Your task to perform on an android device: What's the weather? Image 0: 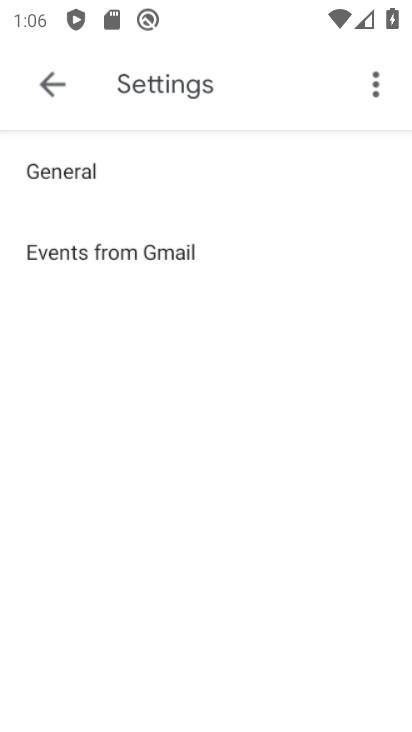
Step 0: drag from (160, 586) to (245, 89)
Your task to perform on an android device: What's the weather? Image 1: 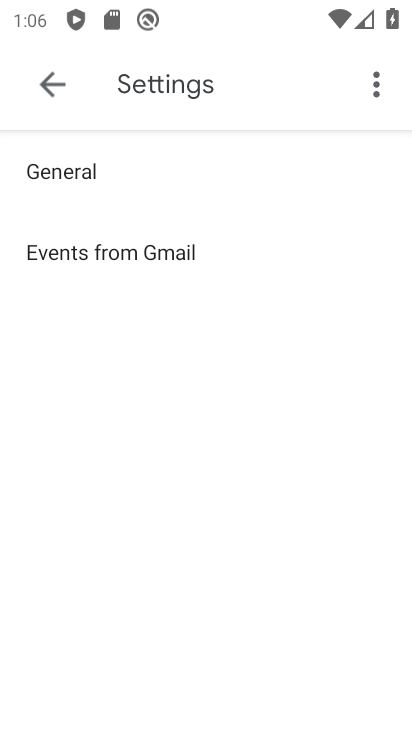
Step 1: press home button
Your task to perform on an android device: What's the weather? Image 2: 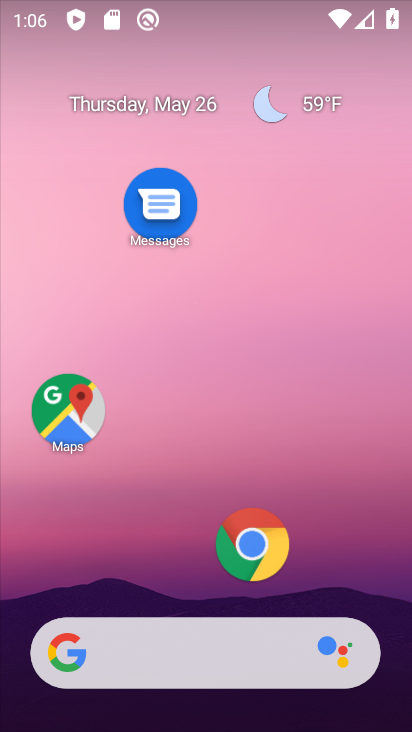
Step 2: click (155, 633)
Your task to perform on an android device: What's the weather? Image 3: 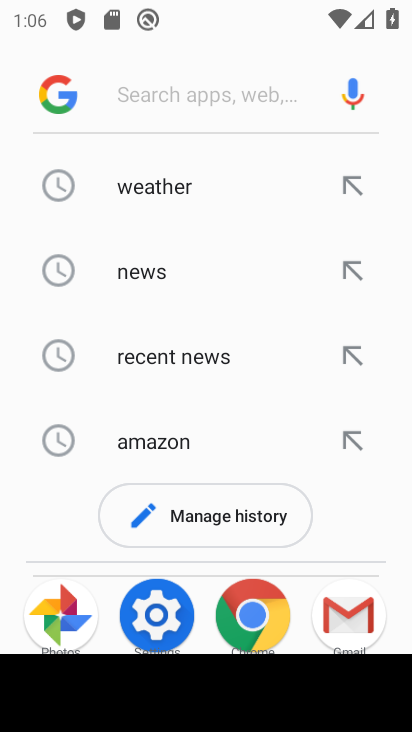
Step 3: click (248, 181)
Your task to perform on an android device: What's the weather? Image 4: 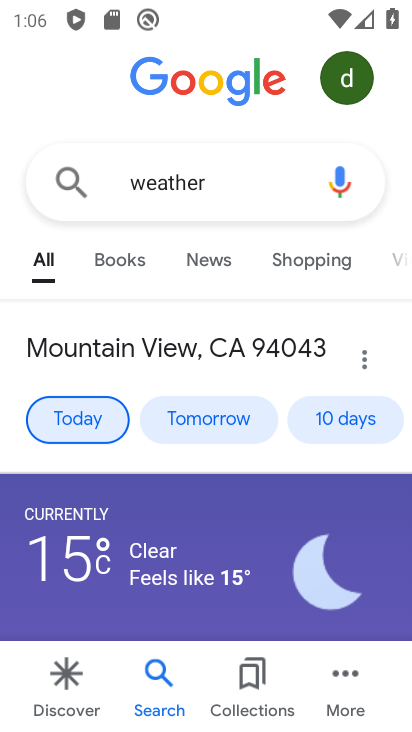
Step 4: task complete